Your task to perform on an android device: Search for bose soundlink mini on walmart.com, select the first entry, and add it to the cart. Image 0: 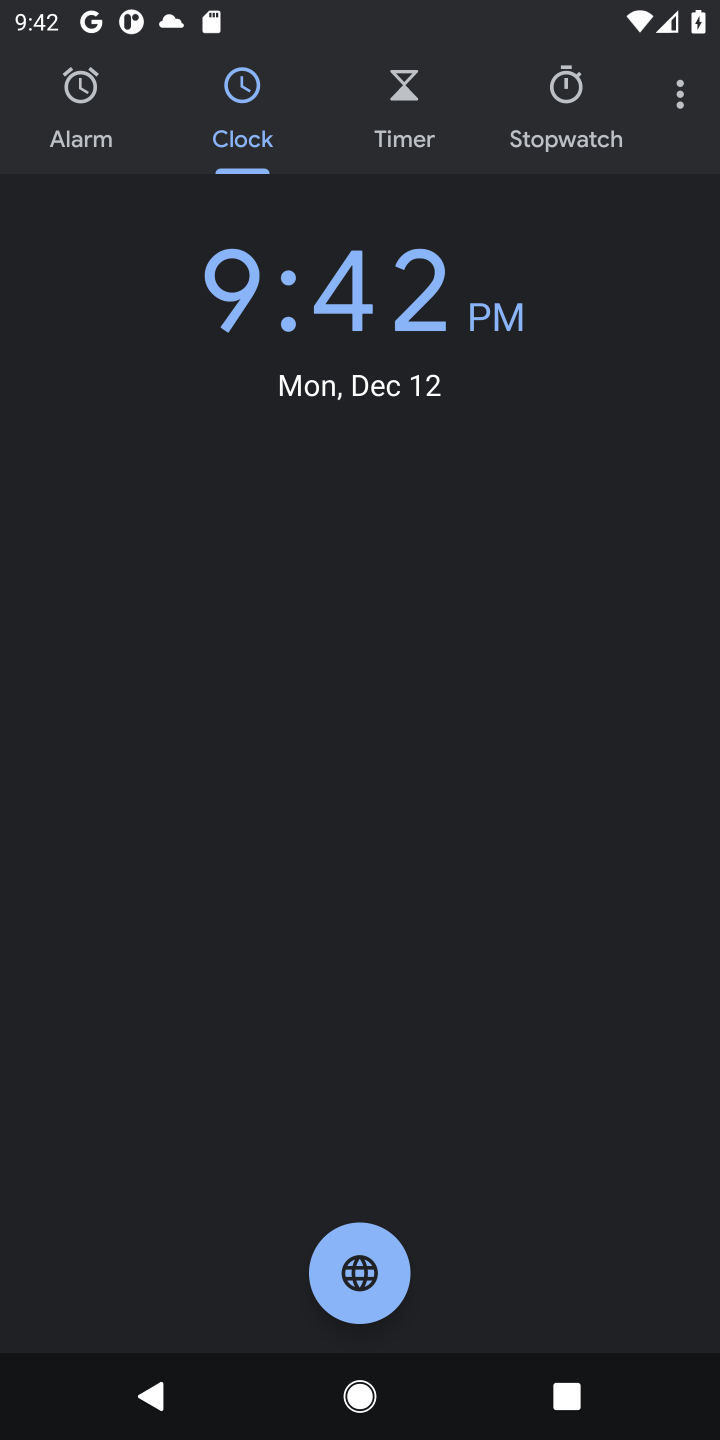
Step 0: press home button
Your task to perform on an android device: Search for bose soundlink mini on walmart.com, select the first entry, and add it to the cart. Image 1: 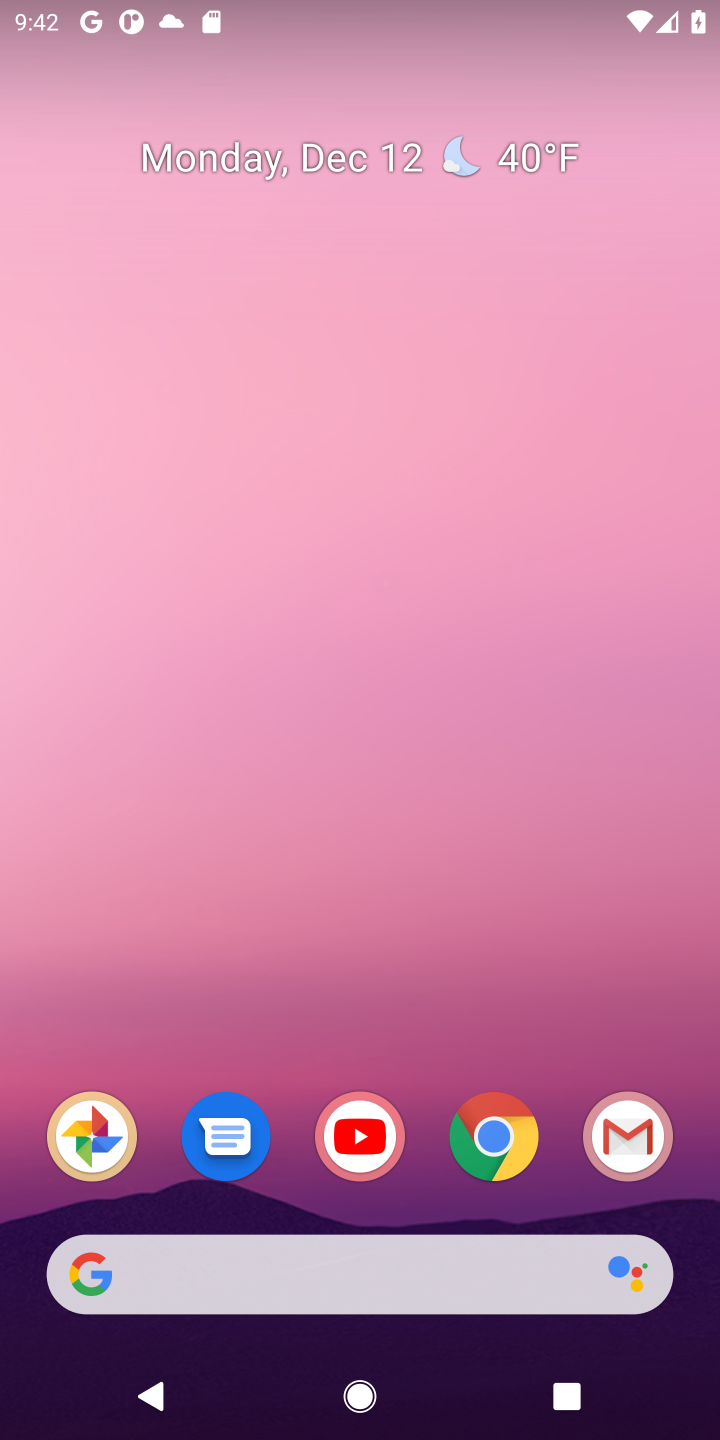
Step 1: click (485, 1154)
Your task to perform on an android device: Search for bose soundlink mini on walmart.com, select the first entry, and add it to the cart. Image 2: 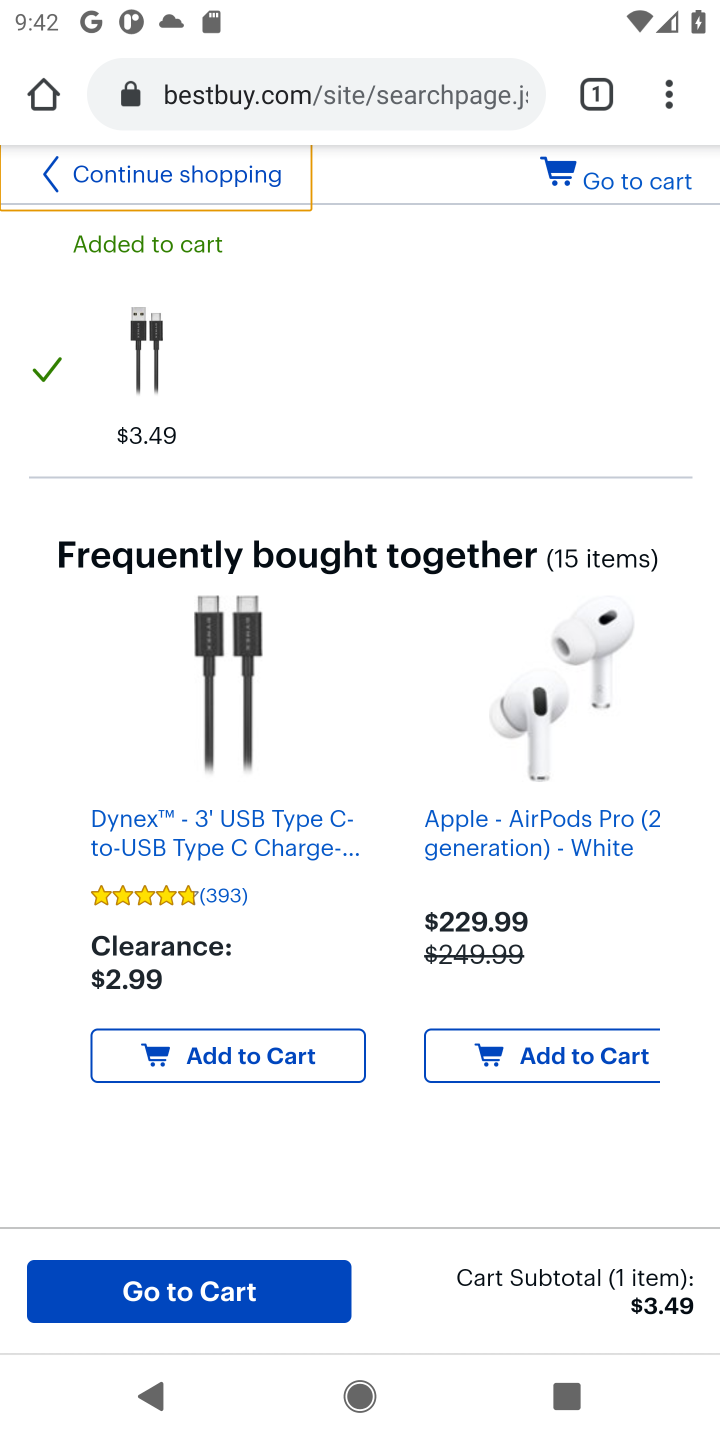
Step 2: click (284, 96)
Your task to perform on an android device: Search for bose soundlink mini on walmart.com, select the first entry, and add it to the cart. Image 3: 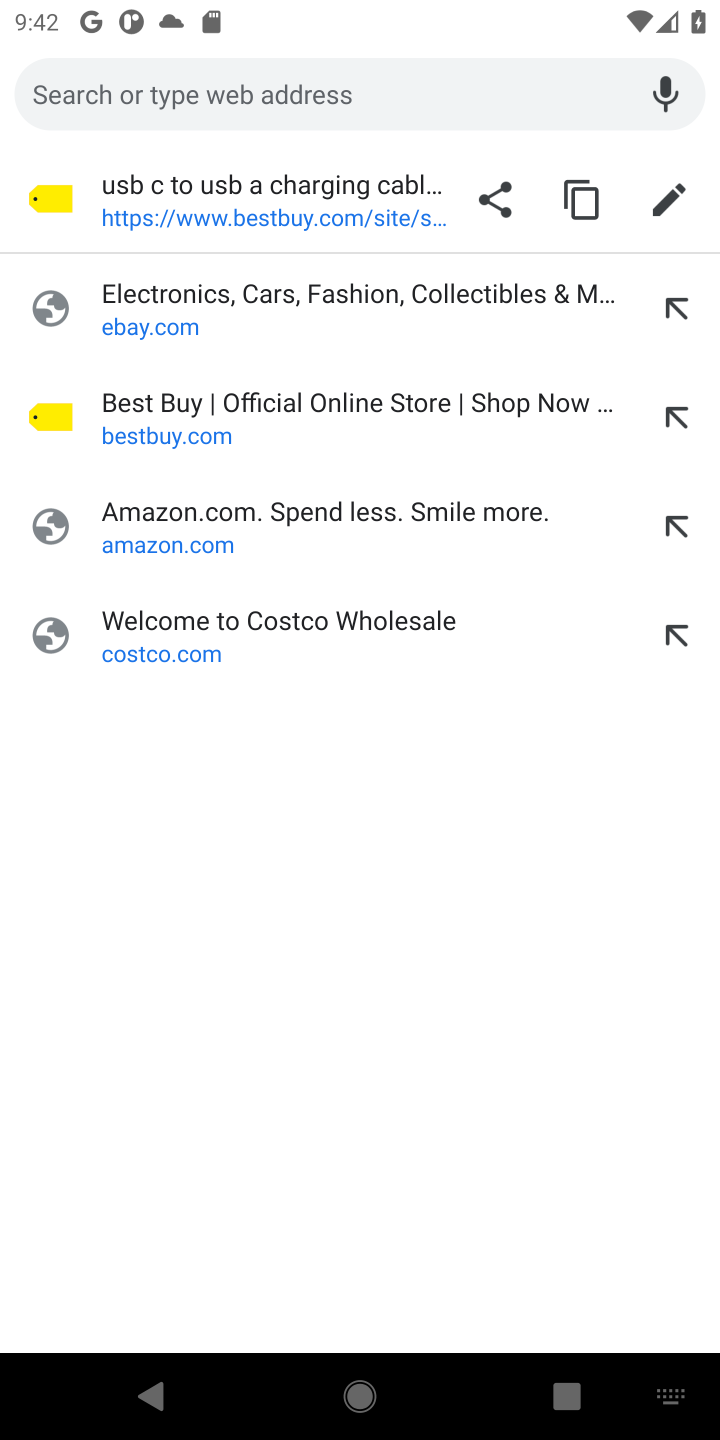
Step 3: type "walmart.com"
Your task to perform on an android device: Search for bose soundlink mini on walmart.com, select the first entry, and add it to the cart. Image 4: 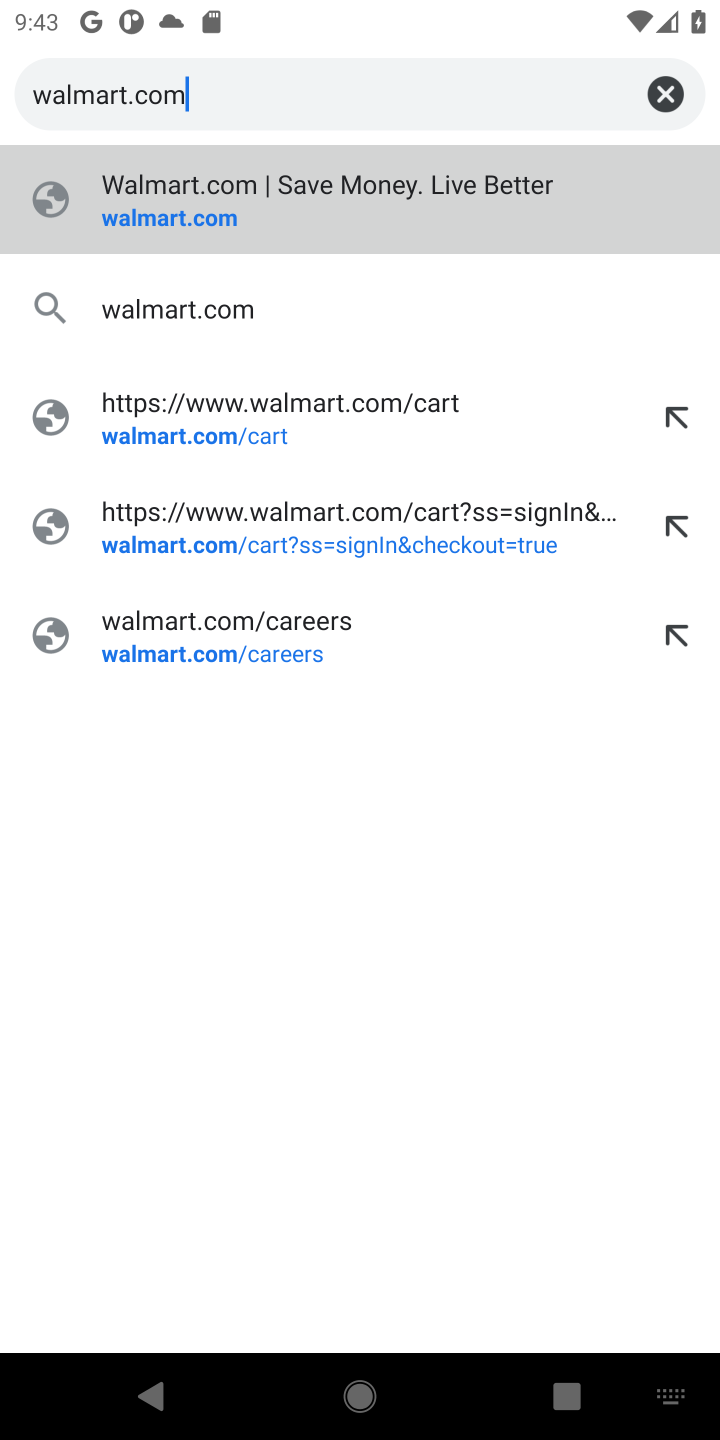
Step 4: click (175, 229)
Your task to perform on an android device: Search for bose soundlink mini on walmart.com, select the first entry, and add it to the cart. Image 5: 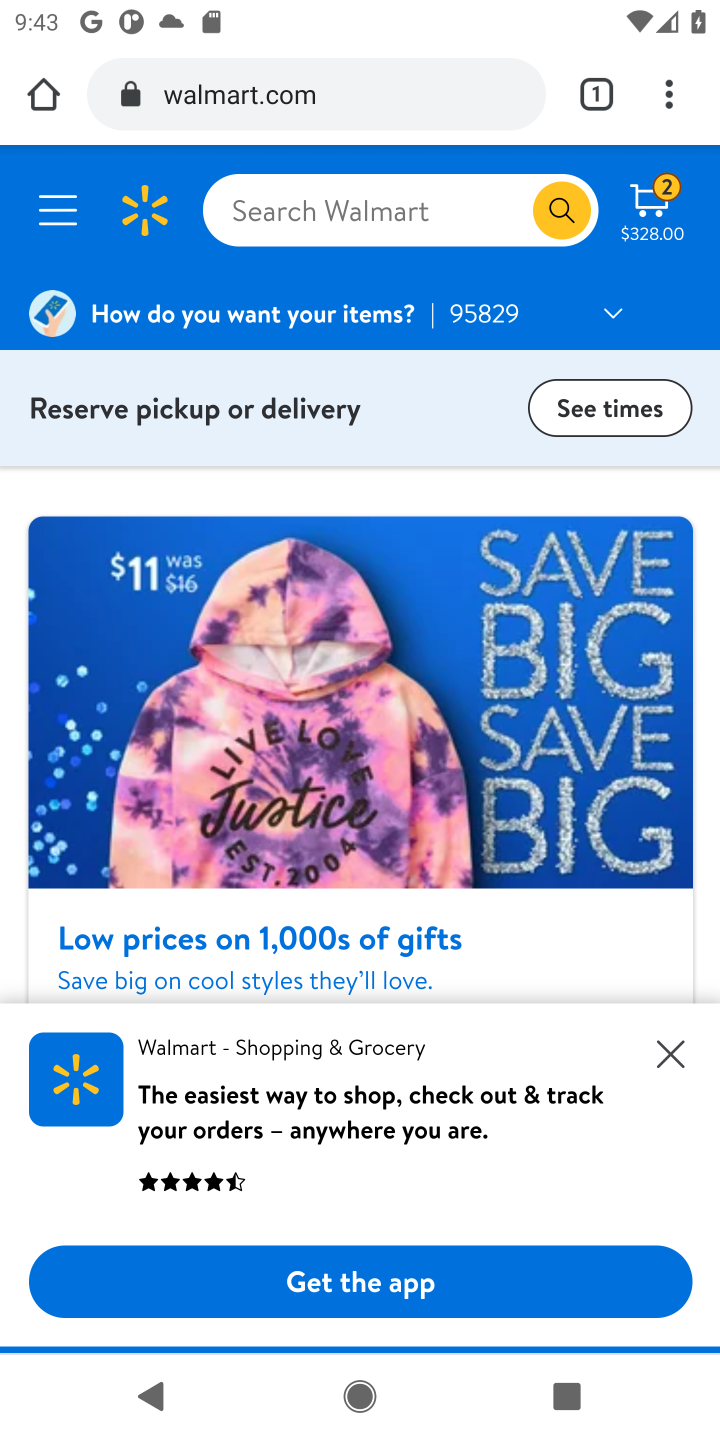
Step 5: click (270, 223)
Your task to perform on an android device: Search for bose soundlink mini on walmart.com, select the first entry, and add it to the cart. Image 6: 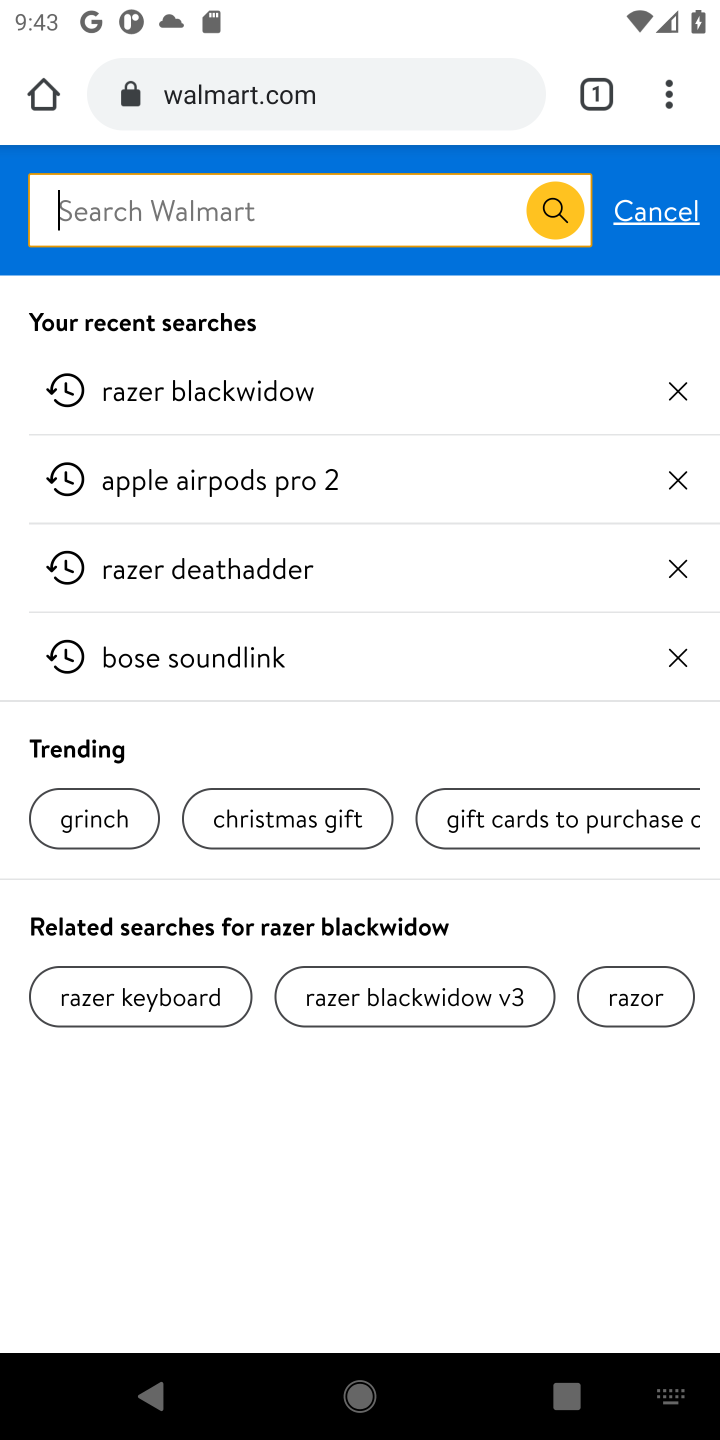
Step 6: type "bose soundlink mini "
Your task to perform on an android device: Search for bose soundlink mini on walmart.com, select the first entry, and add it to the cart. Image 7: 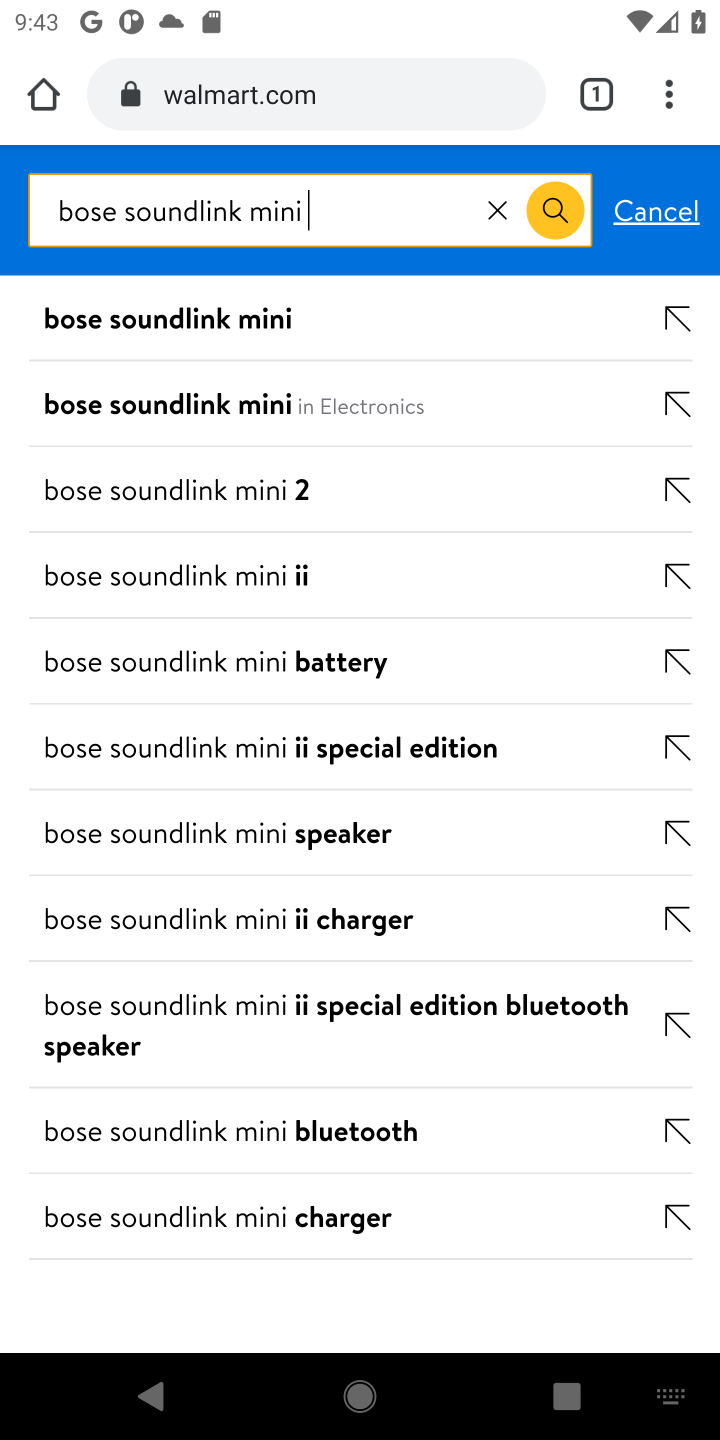
Step 7: click (175, 339)
Your task to perform on an android device: Search for bose soundlink mini on walmart.com, select the first entry, and add it to the cart. Image 8: 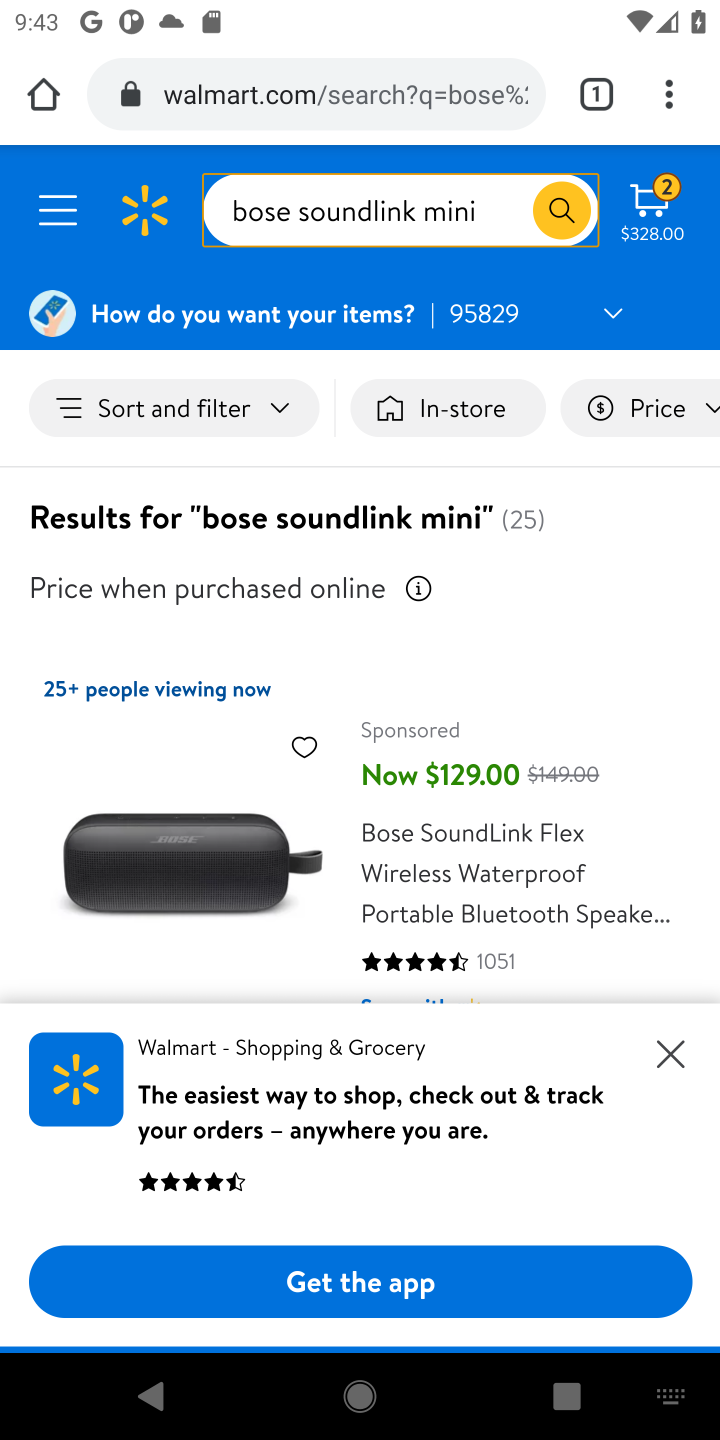
Step 8: task complete